Your task to perform on an android device: How do I get to the nearest Nordstrom? Image 0: 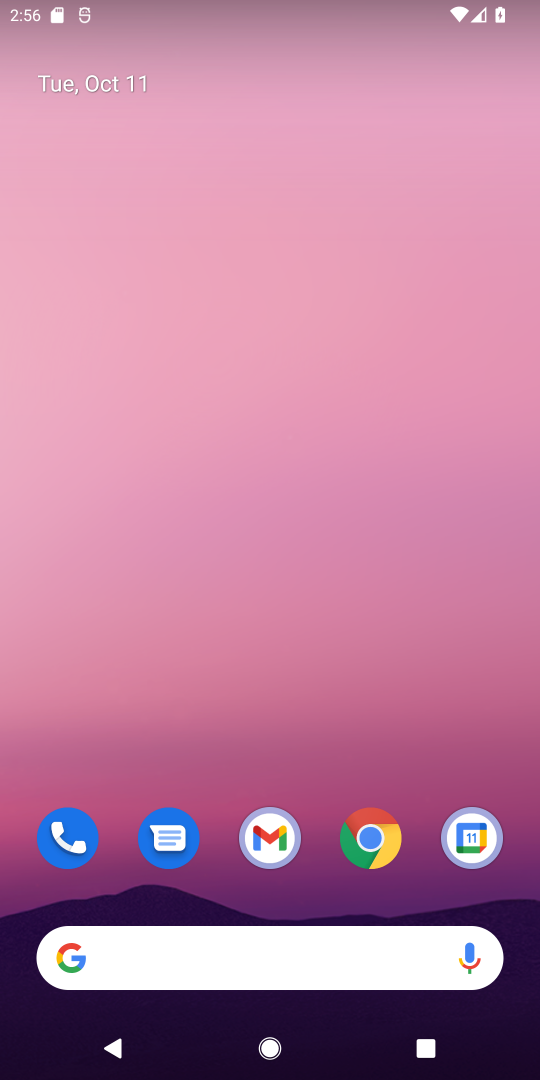
Step 0: click (368, 828)
Your task to perform on an android device: How do I get to the nearest Nordstrom? Image 1: 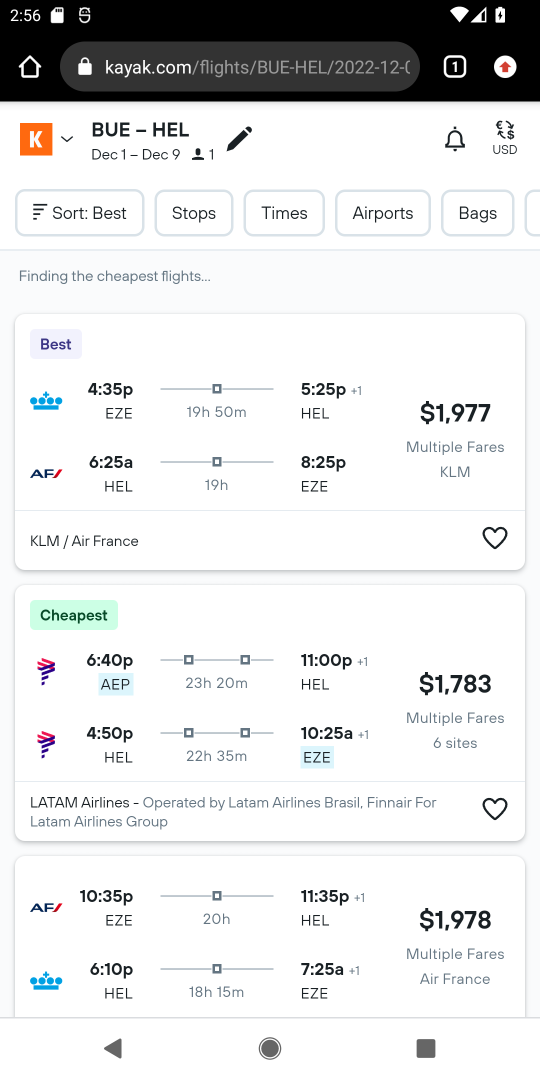
Step 1: click (222, 65)
Your task to perform on an android device: How do I get to the nearest Nordstrom? Image 2: 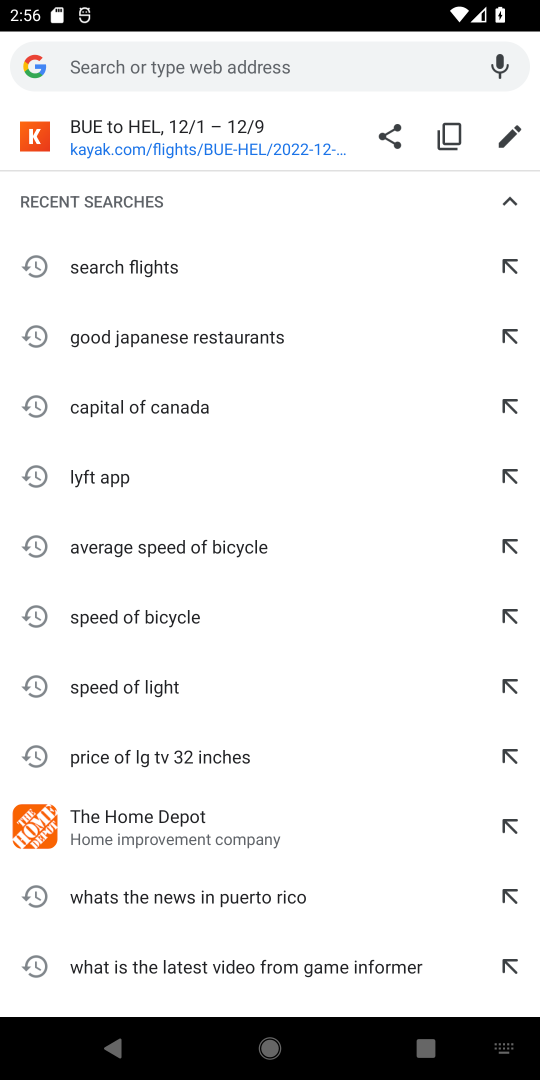
Step 2: type "nearest nordstrom"
Your task to perform on an android device: How do I get to the nearest Nordstrom? Image 3: 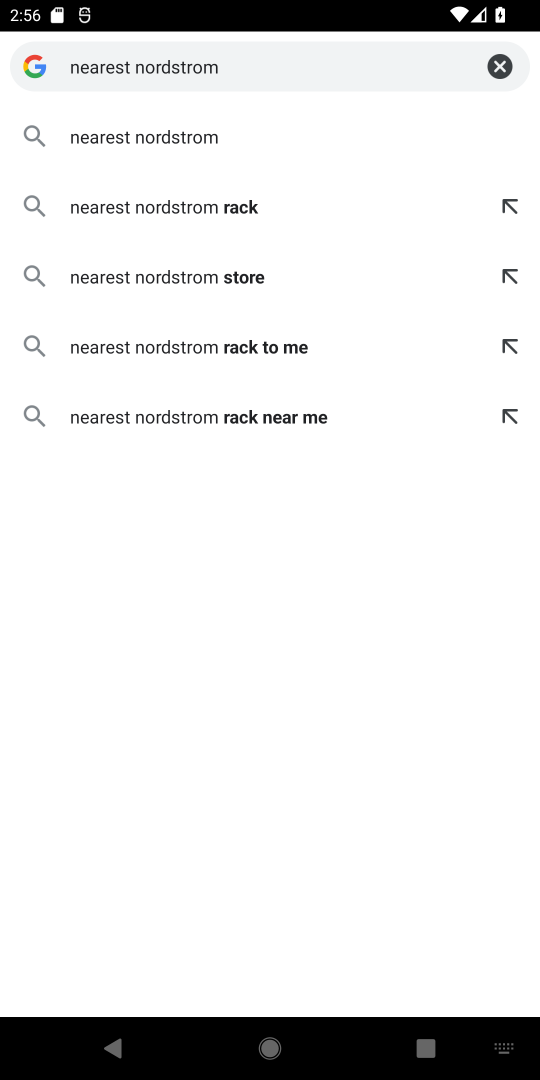
Step 3: click (86, 137)
Your task to perform on an android device: How do I get to the nearest Nordstrom? Image 4: 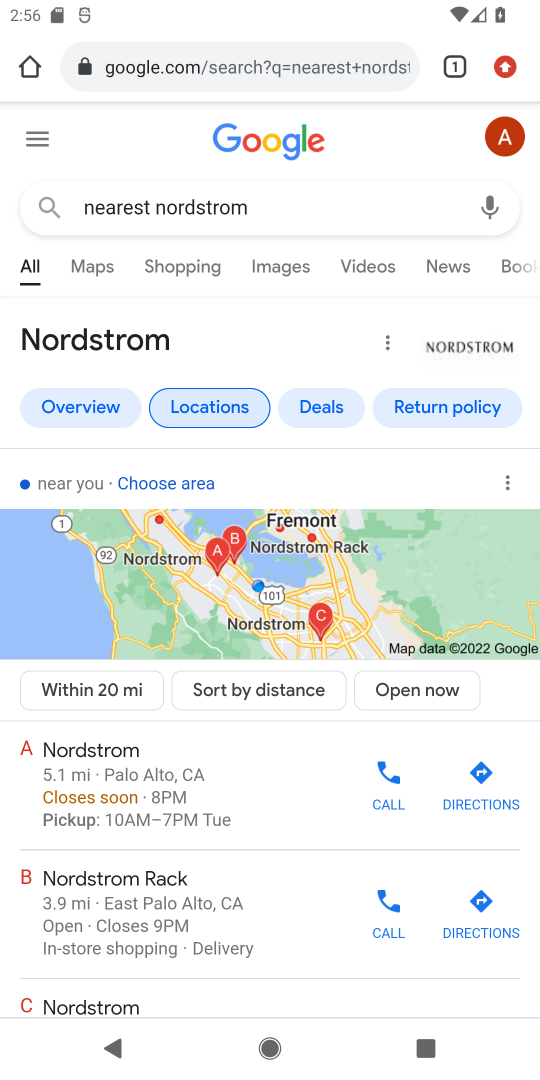
Step 4: drag from (290, 735) to (290, 365)
Your task to perform on an android device: How do I get to the nearest Nordstrom? Image 5: 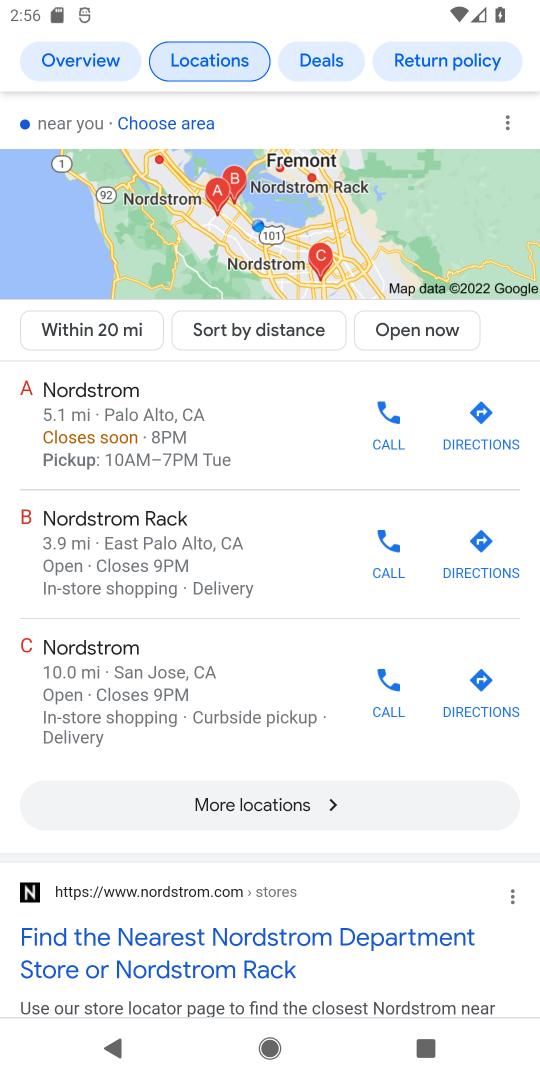
Step 5: click (129, 932)
Your task to perform on an android device: How do I get to the nearest Nordstrom? Image 6: 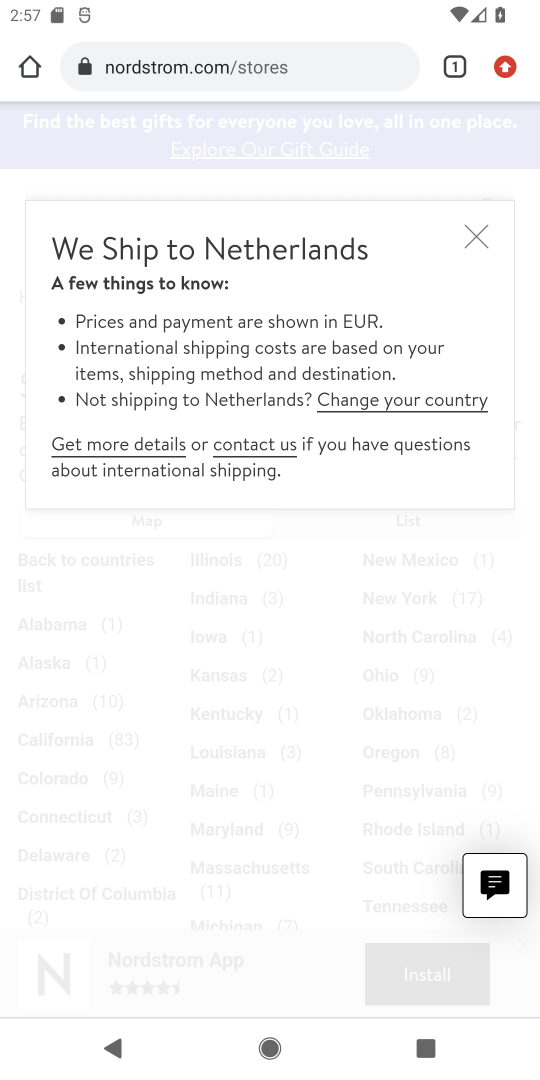
Step 6: click (467, 232)
Your task to perform on an android device: How do I get to the nearest Nordstrom? Image 7: 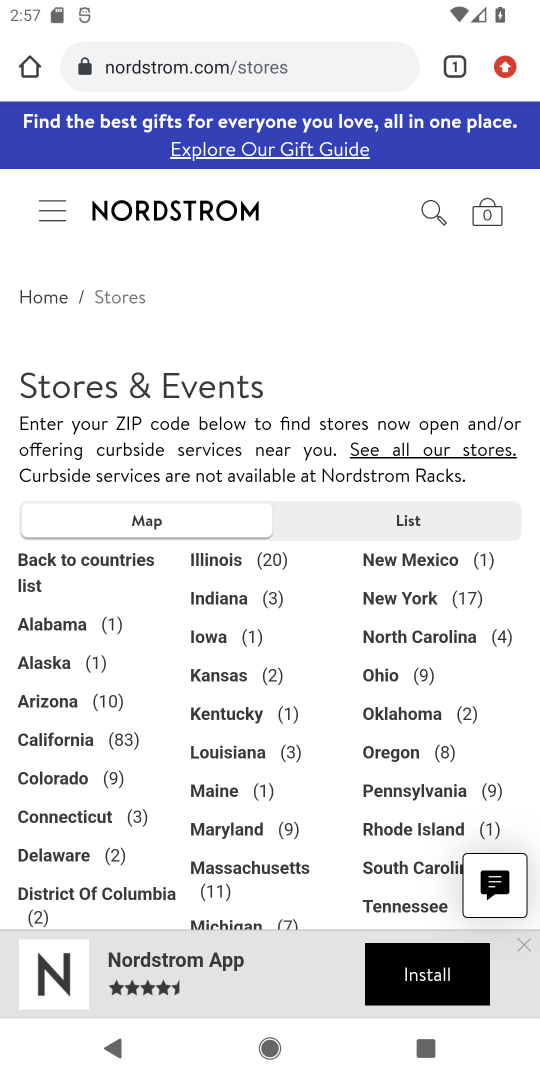
Step 7: drag from (152, 751) to (193, 476)
Your task to perform on an android device: How do I get to the nearest Nordstrom? Image 8: 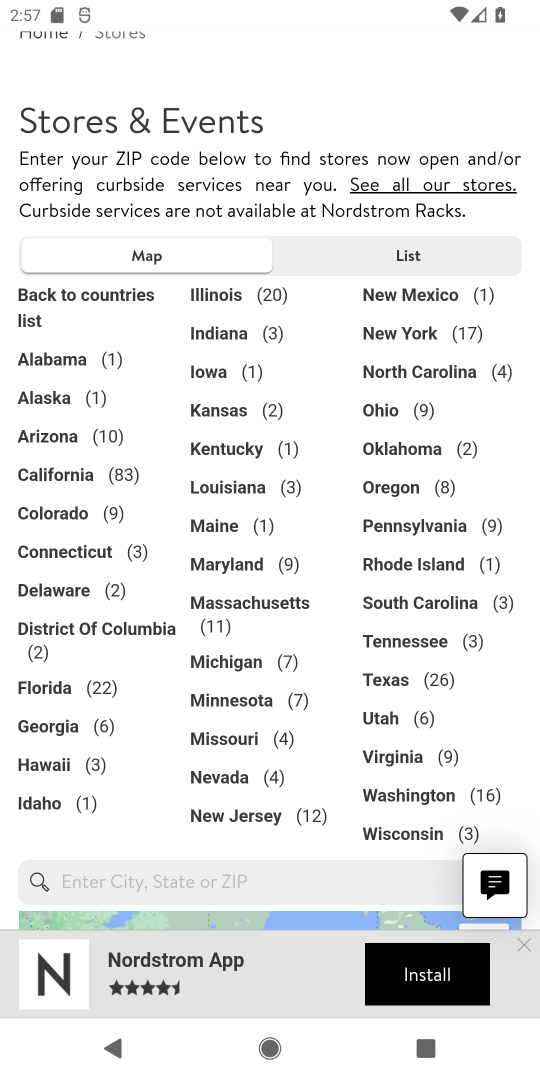
Step 8: drag from (166, 635) to (190, 429)
Your task to perform on an android device: How do I get to the nearest Nordstrom? Image 9: 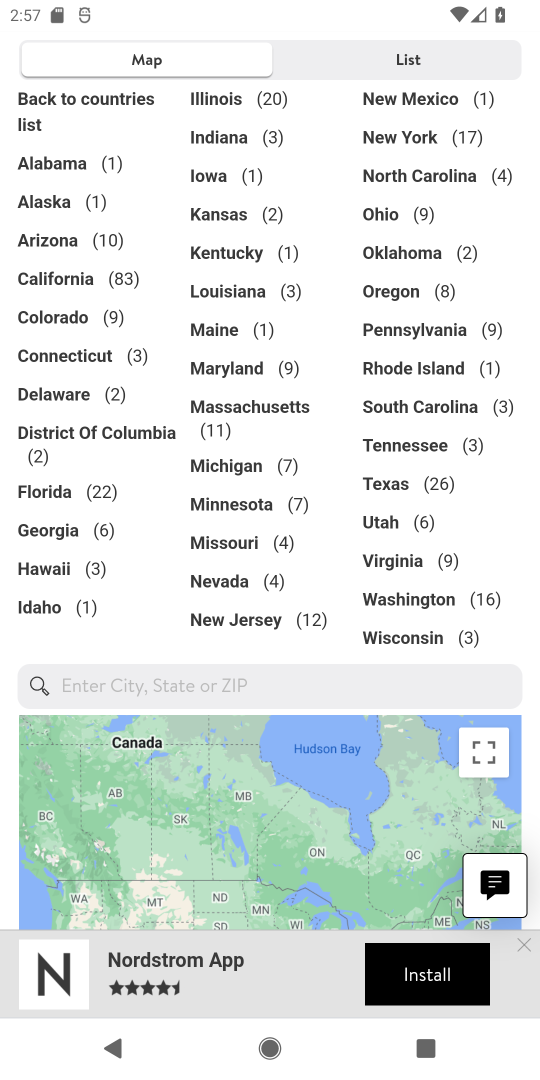
Step 9: drag from (309, 374) to (293, 765)
Your task to perform on an android device: How do I get to the nearest Nordstrom? Image 10: 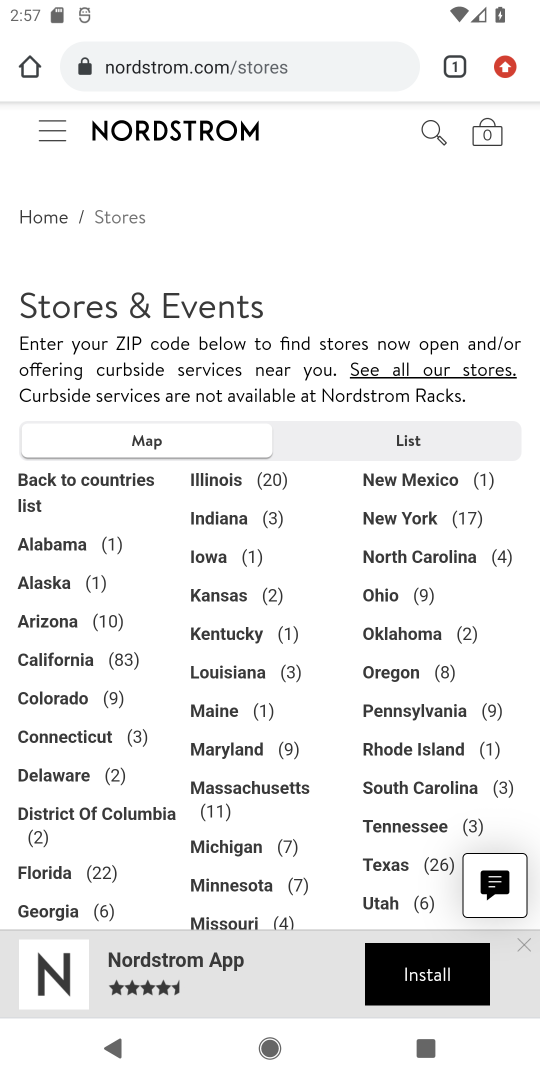
Step 10: drag from (224, 594) to (224, 822)
Your task to perform on an android device: How do I get to the nearest Nordstrom? Image 11: 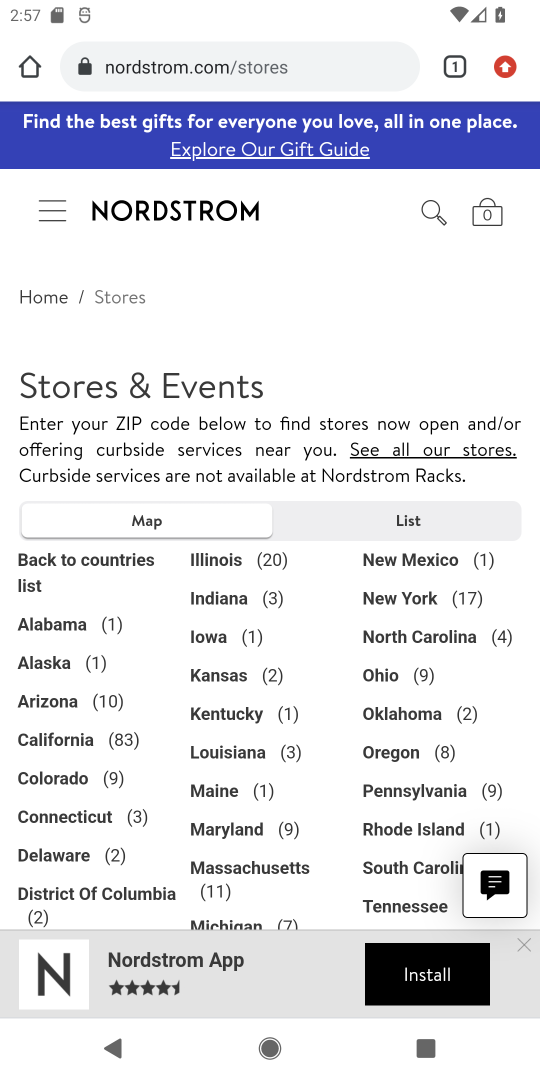
Step 11: click (522, 948)
Your task to perform on an android device: How do I get to the nearest Nordstrom? Image 12: 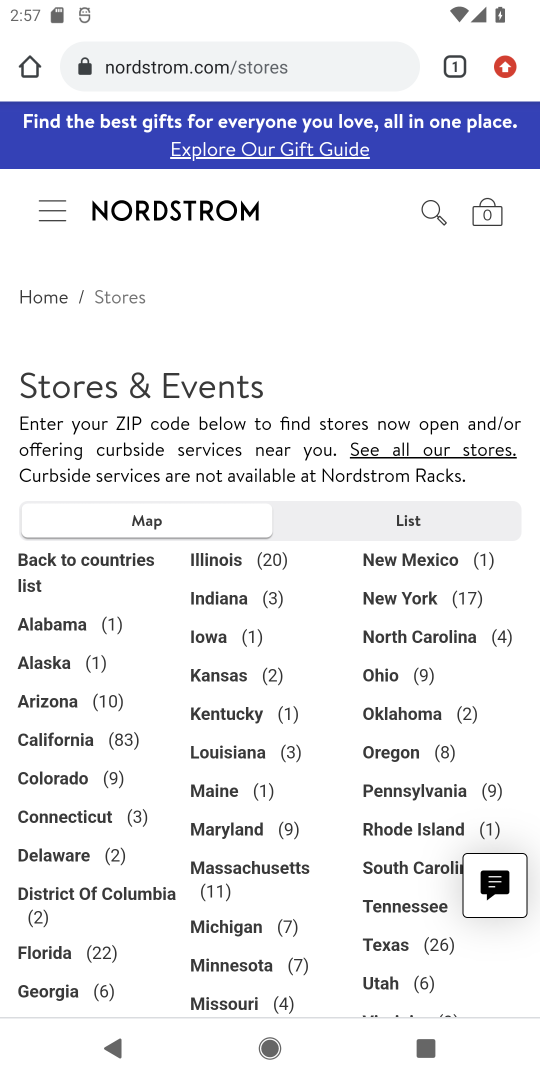
Step 12: task complete